Your task to perform on an android device: Go to battery settings Image 0: 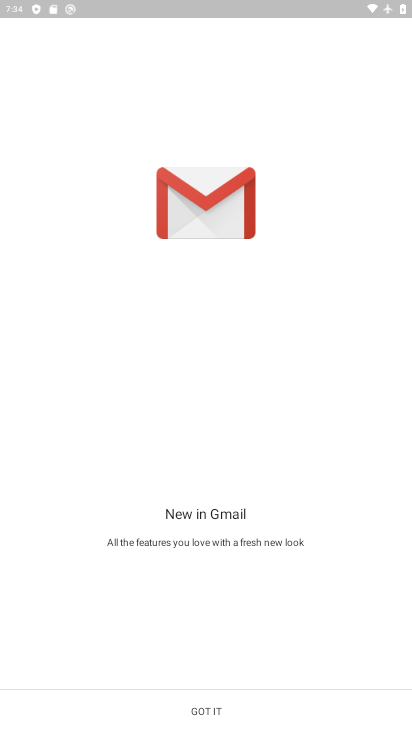
Step 0: press home button
Your task to perform on an android device: Go to battery settings Image 1: 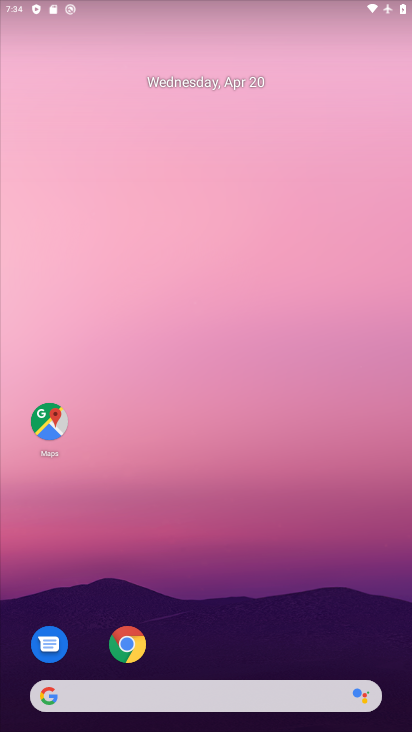
Step 1: drag from (343, 611) to (316, 18)
Your task to perform on an android device: Go to battery settings Image 2: 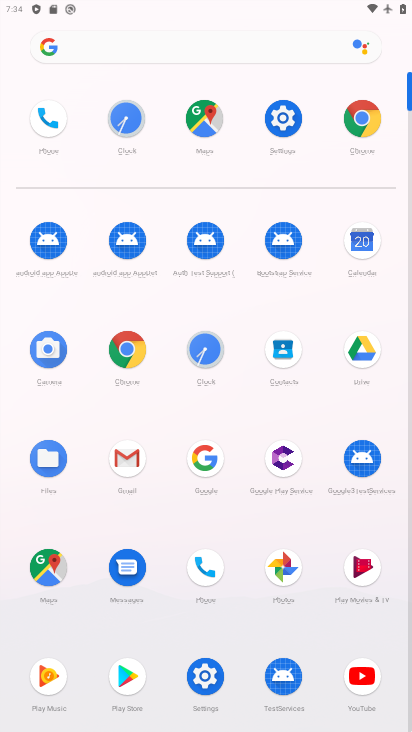
Step 2: click (281, 133)
Your task to perform on an android device: Go to battery settings Image 3: 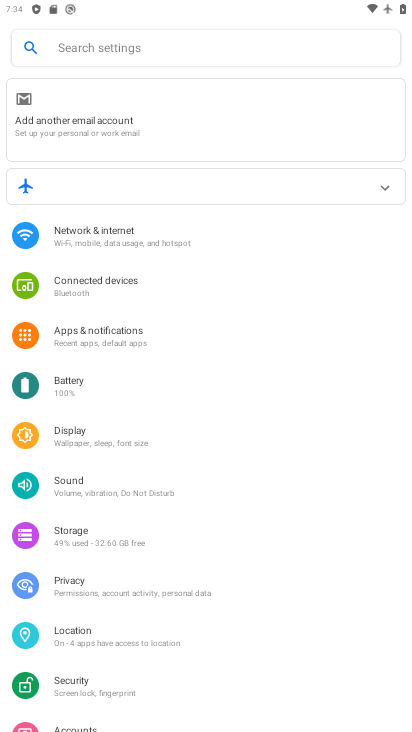
Step 3: click (104, 382)
Your task to perform on an android device: Go to battery settings Image 4: 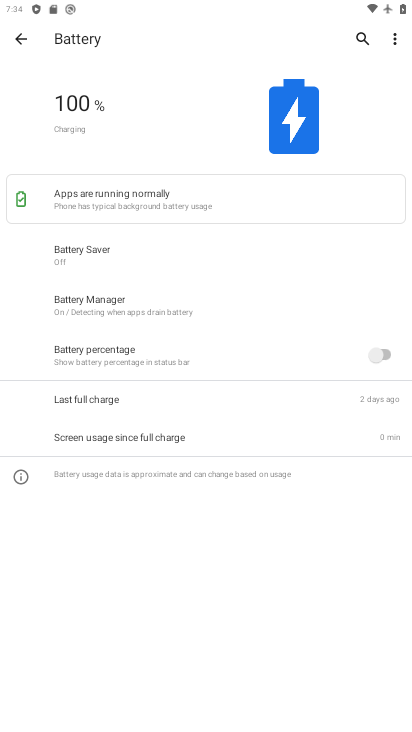
Step 4: task complete